Your task to perform on an android device: open app "VLC for Android" Image 0: 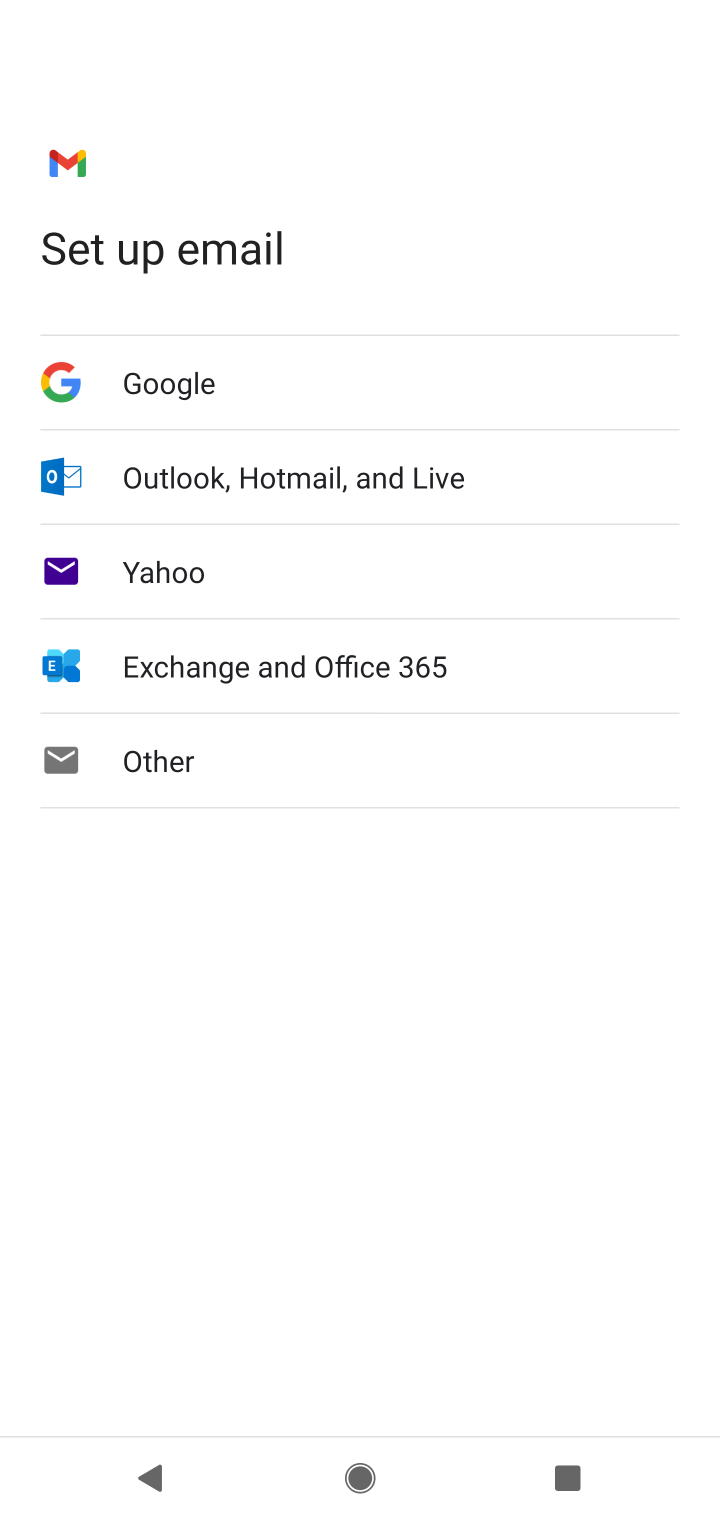
Step 0: press home button
Your task to perform on an android device: open app "VLC for Android" Image 1: 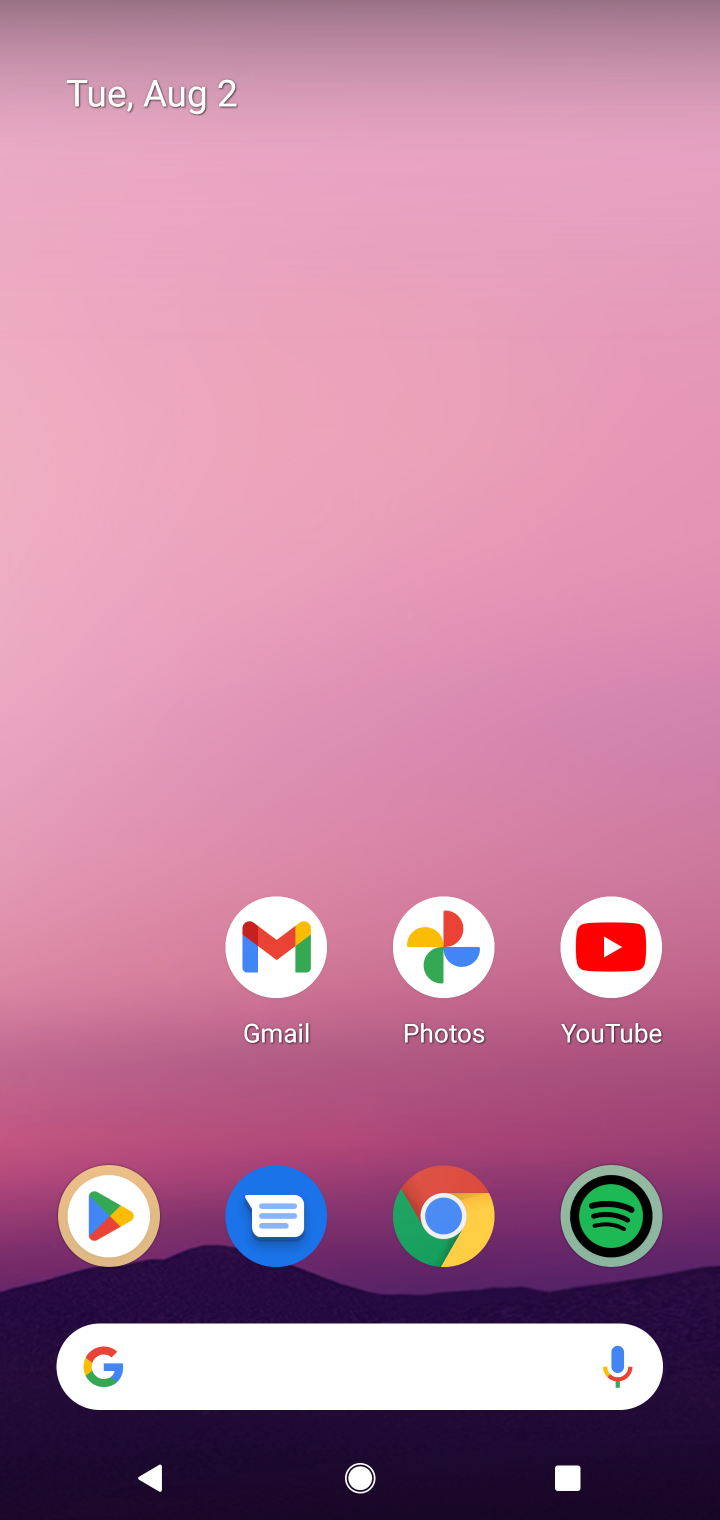
Step 1: click (122, 1240)
Your task to perform on an android device: open app "VLC for Android" Image 2: 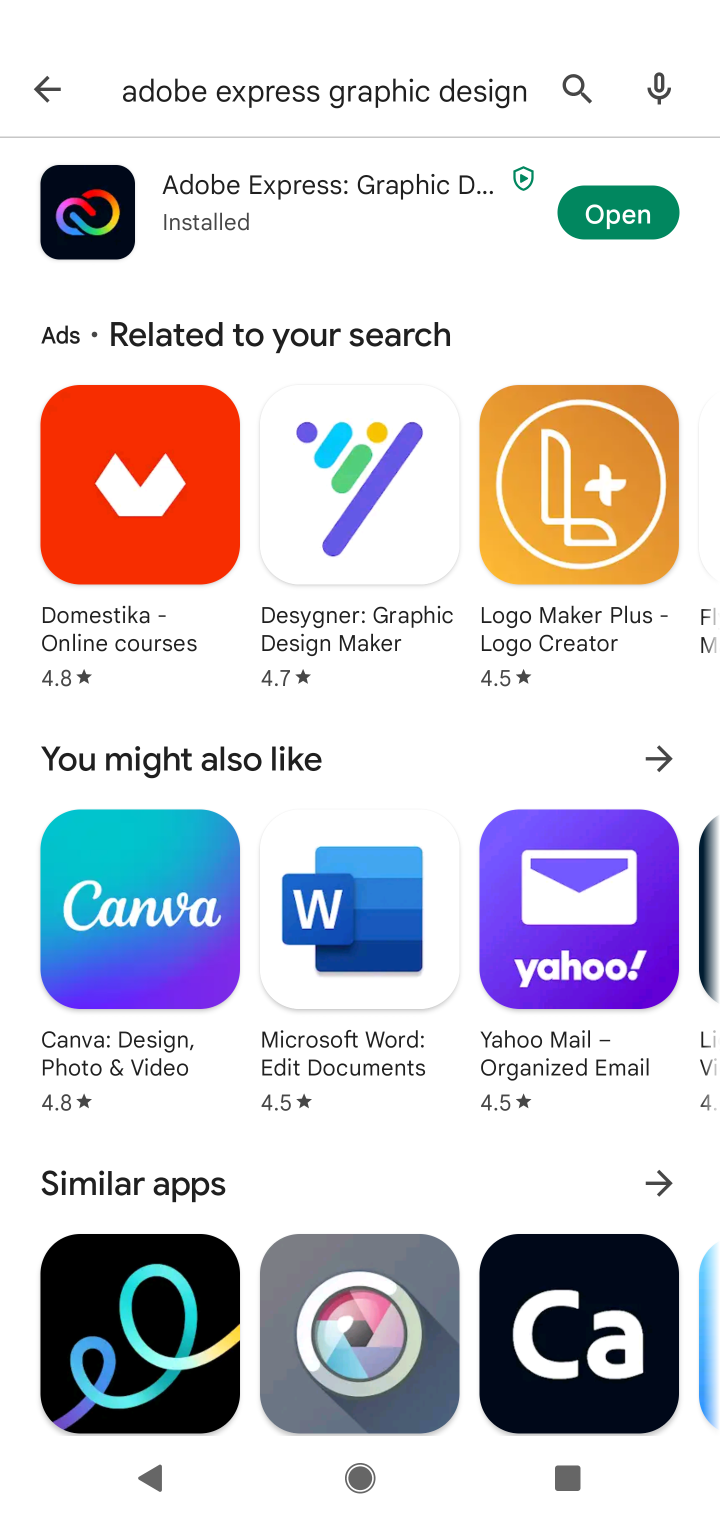
Step 2: click (562, 85)
Your task to perform on an android device: open app "VLC for Android" Image 3: 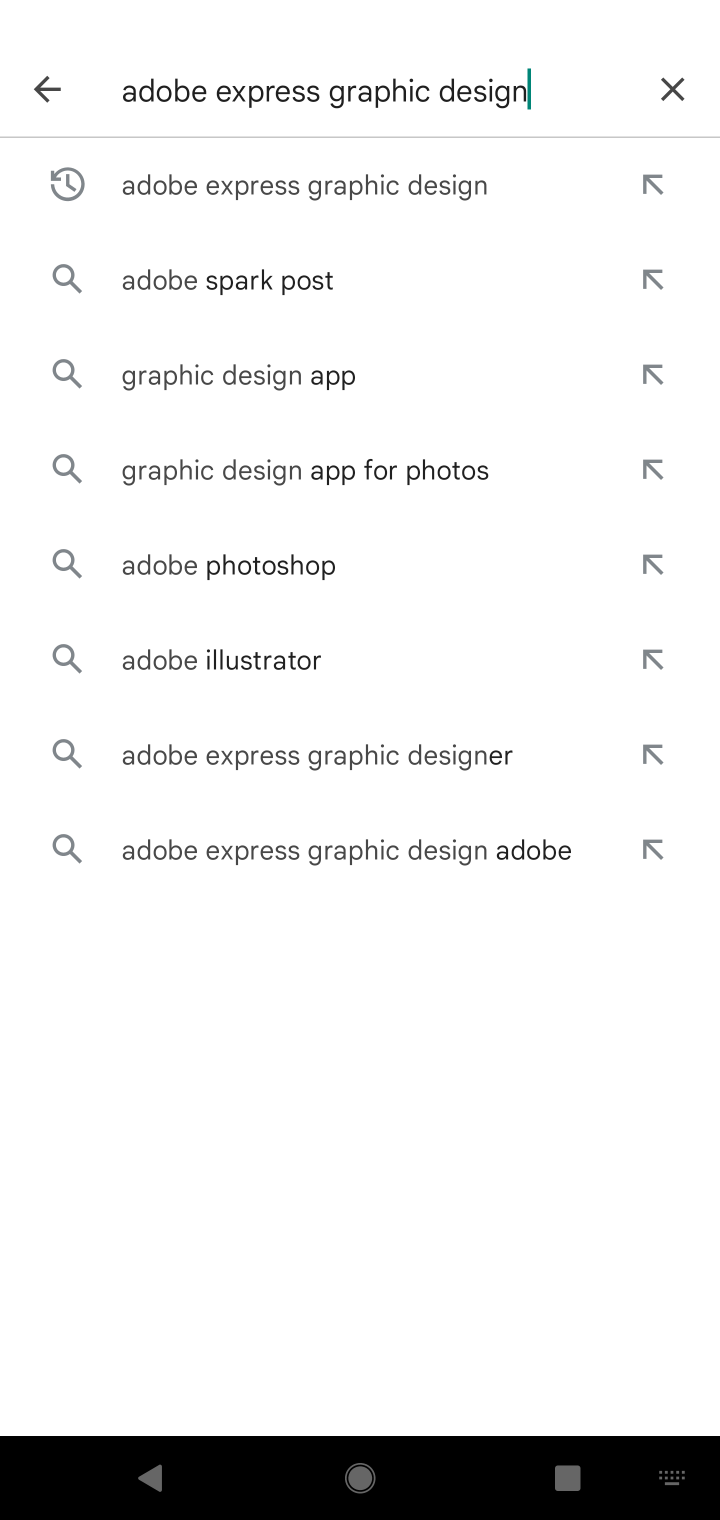
Step 3: click (671, 84)
Your task to perform on an android device: open app "VLC for Android" Image 4: 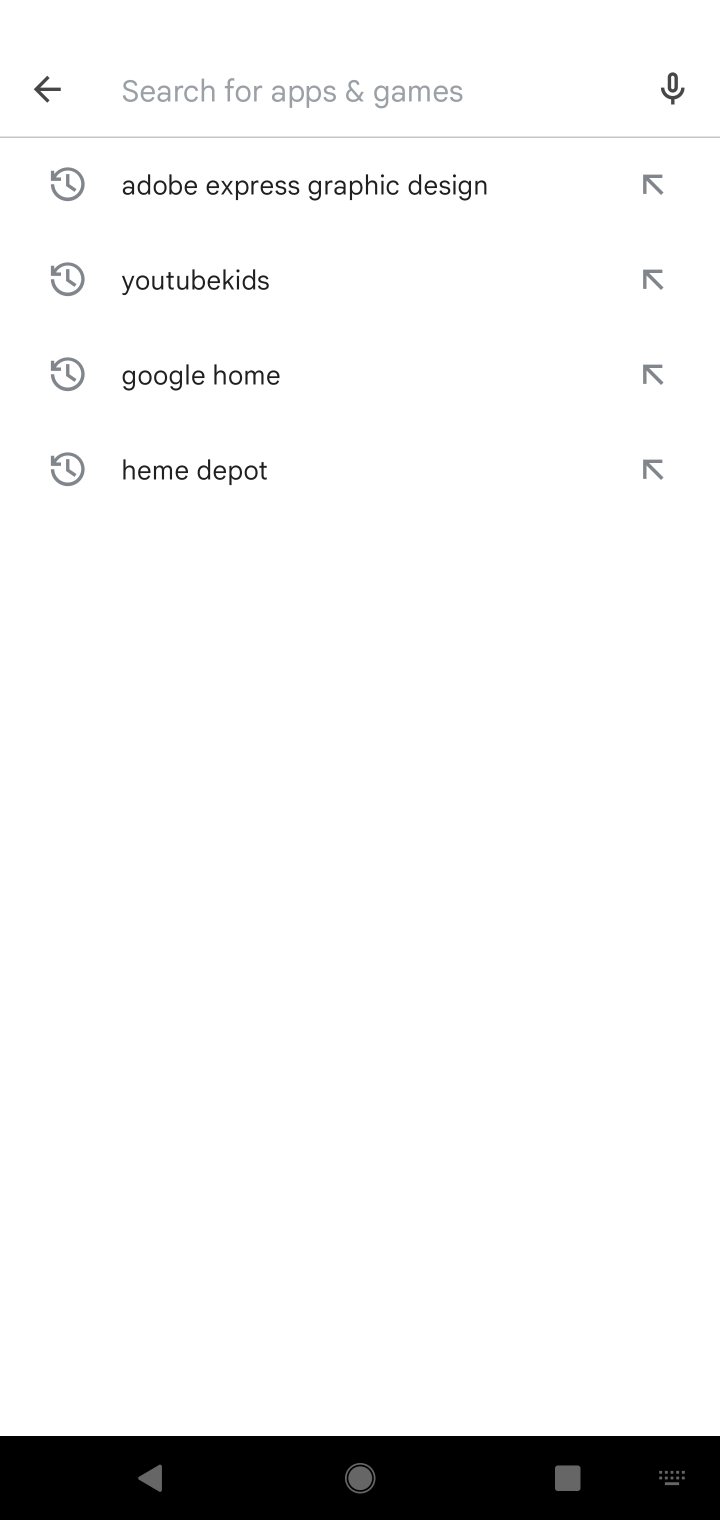
Step 4: type "vlc"
Your task to perform on an android device: open app "VLC for Android" Image 5: 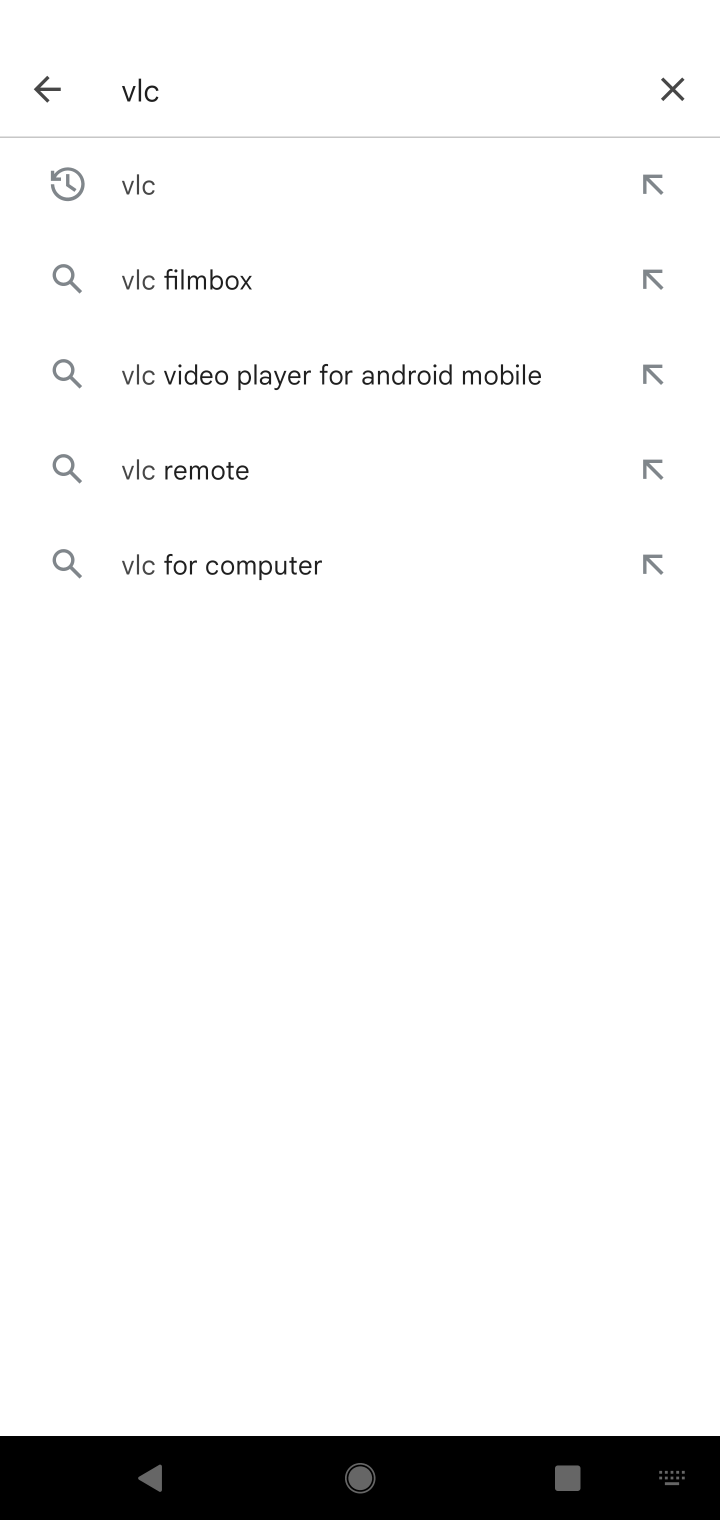
Step 5: click (178, 207)
Your task to perform on an android device: open app "VLC for Android" Image 6: 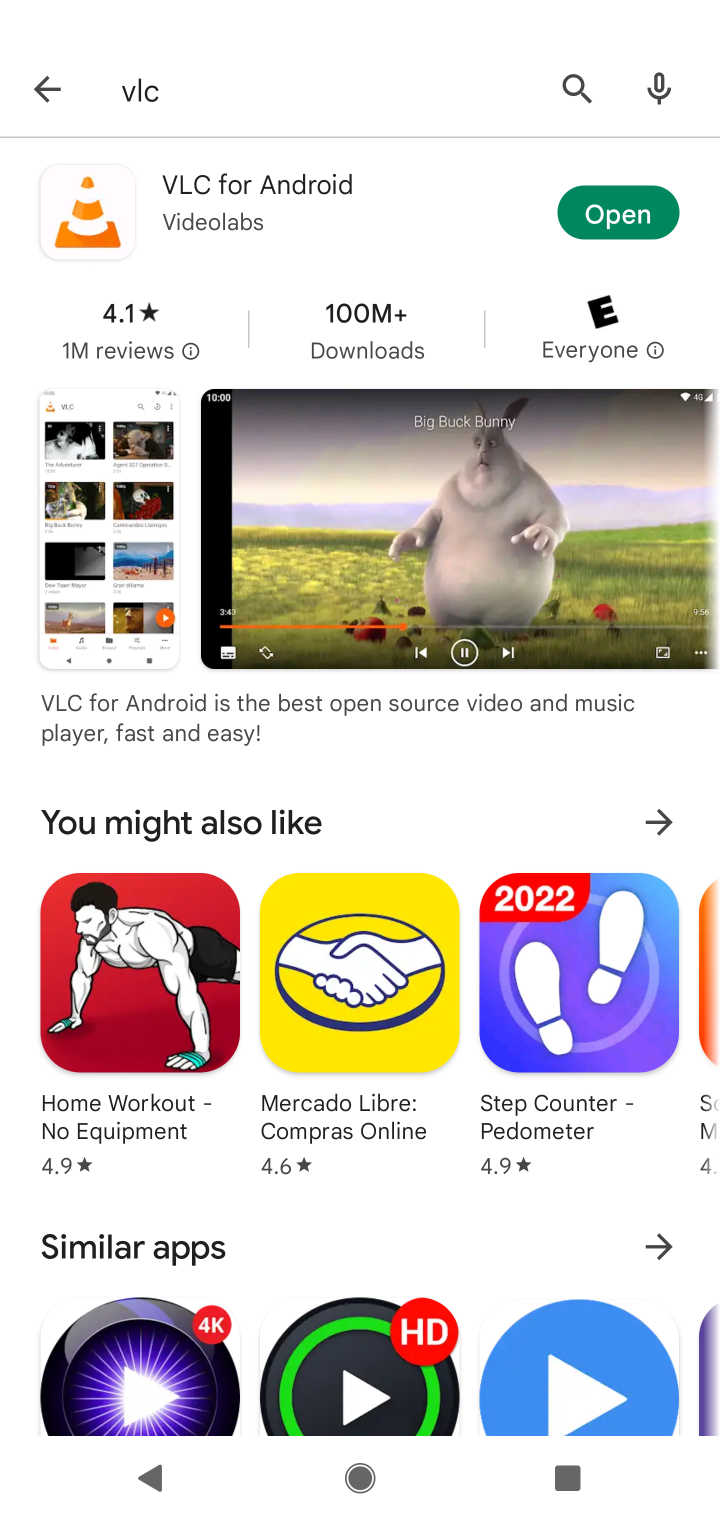
Step 6: click (610, 233)
Your task to perform on an android device: open app "VLC for Android" Image 7: 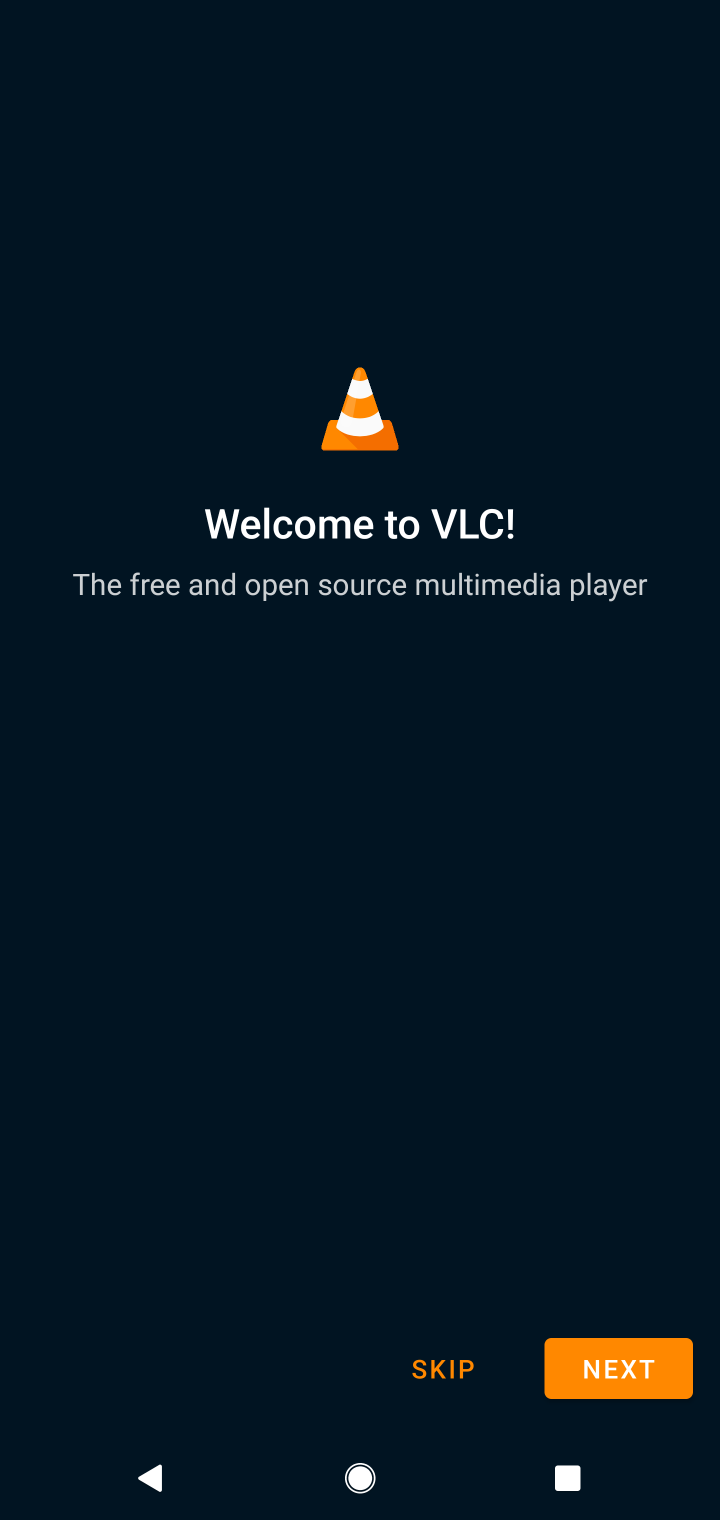
Step 7: task complete